Your task to perform on an android device: search for starred emails in the gmail app Image 0: 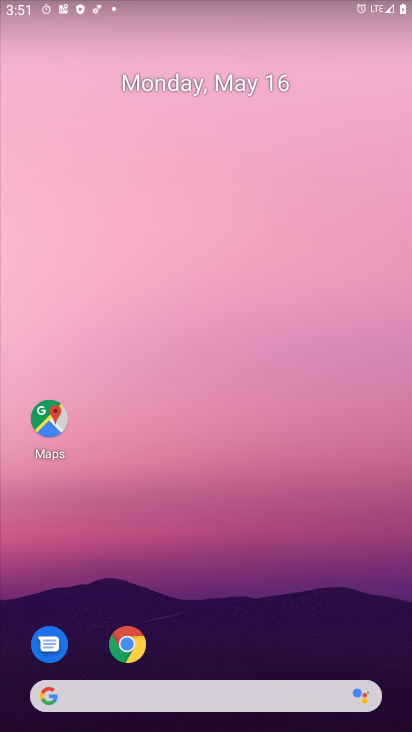
Step 0: drag from (204, 578) to (235, 45)
Your task to perform on an android device: search for starred emails in the gmail app Image 1: 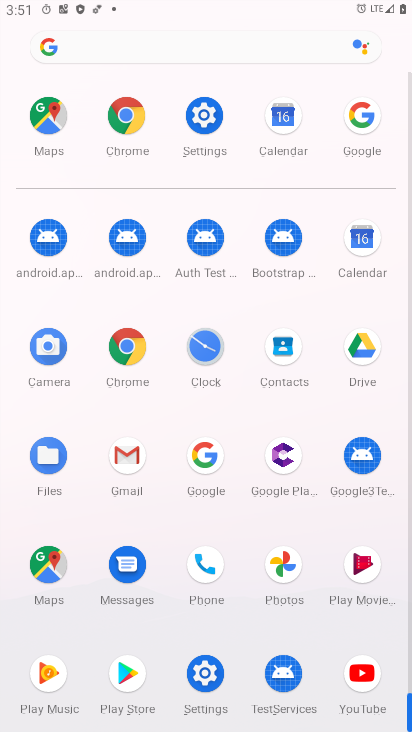
Step 1: click (143, 466)
Your task to perform on an android device: search for starred emails in the gmail app Image 2: 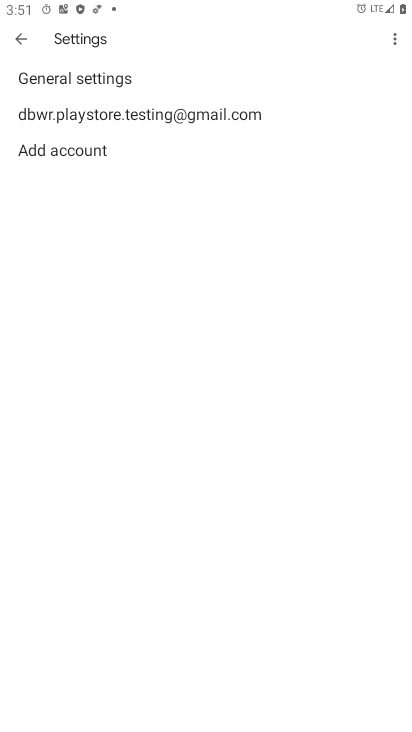
Step 2: click (19, 46)
Your task to perform on an android device: search for starred emails in the gmail app Image 3: 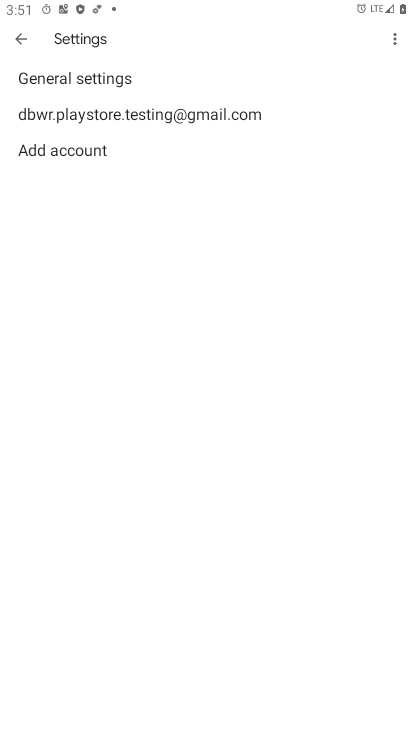
Step 3: click (14, 41)
Your task to perform on an android device: search for starred emails in the gmail app Image 4: 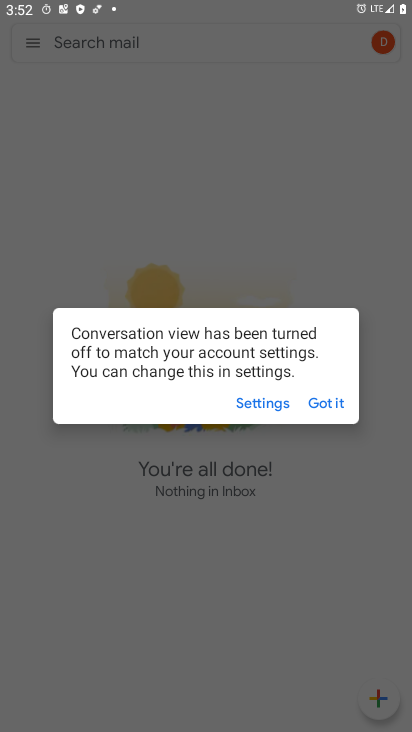
Step 4: click (330, 406)
Your task to perform on an android device: search for starred emails in the gmail app Image 5: 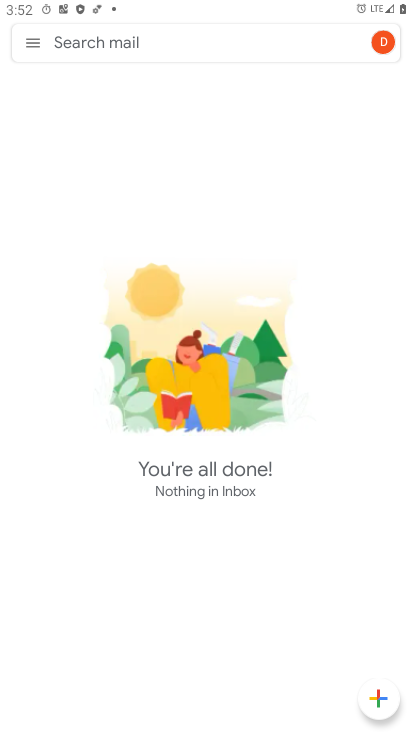
Step 5: click (40, 36)
Your task to perform on an android device: search for starred emails in the gmail app Image 6: 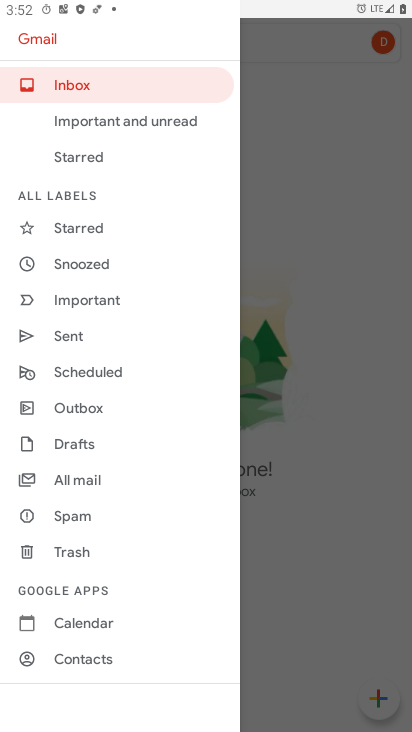
Step 6: click (88, 235)
Your task to perform on an android device: search for starred emails in the gmail app Image 7: 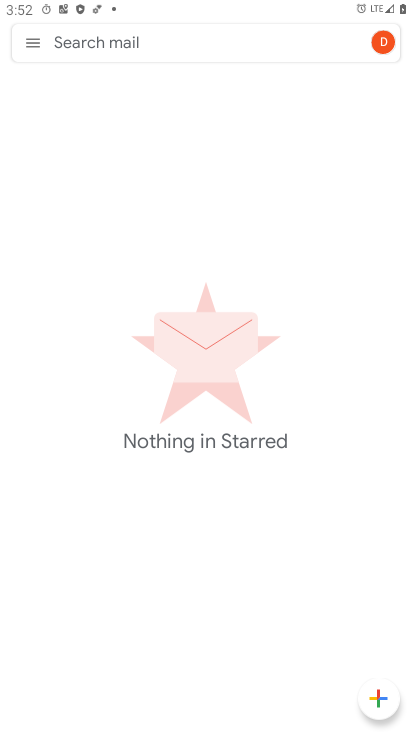
Step 7: task complete